Your task to perform on an android device: Show me productivity apps on the Play Store Image 0: 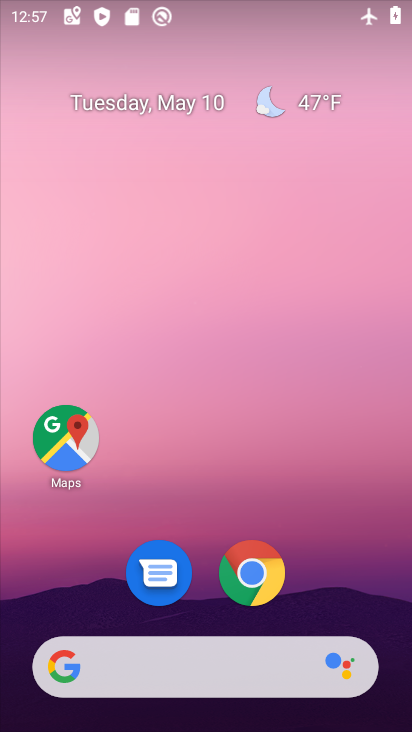
Step 0: drag from (208, 608) to (260, 175)
Your task to perform on an android device: Show me productivity apps on the Play Store Image 1: 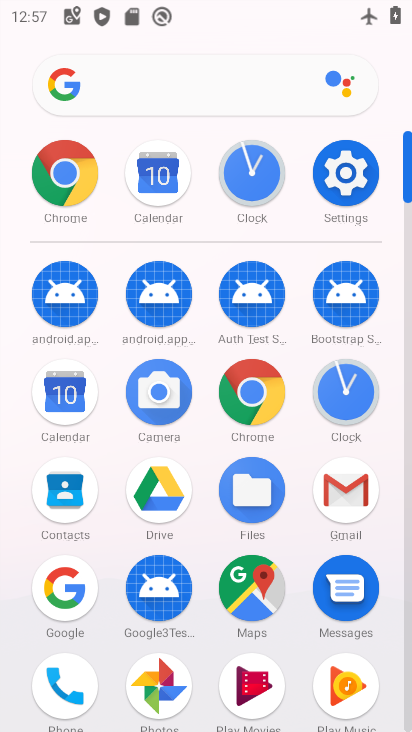
Step 1: drag from (210, 647) to (237, 261)
Your task to perform on an android device: Show me productivity apps on the Play Store Image 2: 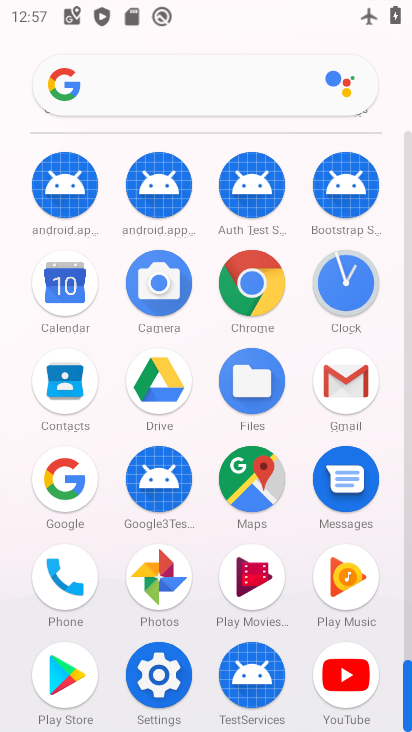
Step 2: click (86, 664)
Your task to perform on an android device: Show me productivity apps on the Play Store Image 3: 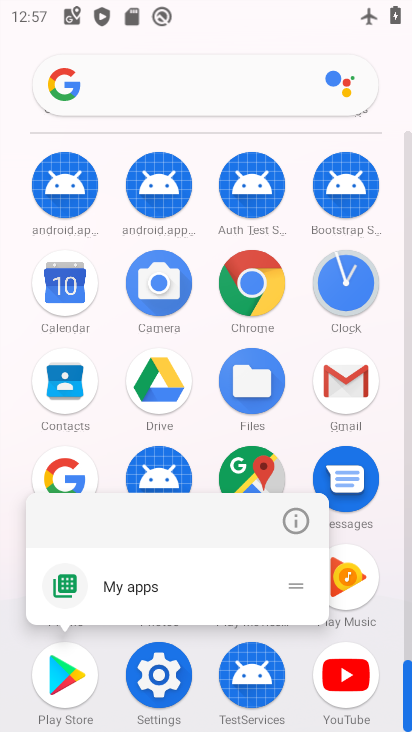
Step 3: click (298, 522)
Your task to perform on an android device: Show me productivity apps on the Play Store Image 4: 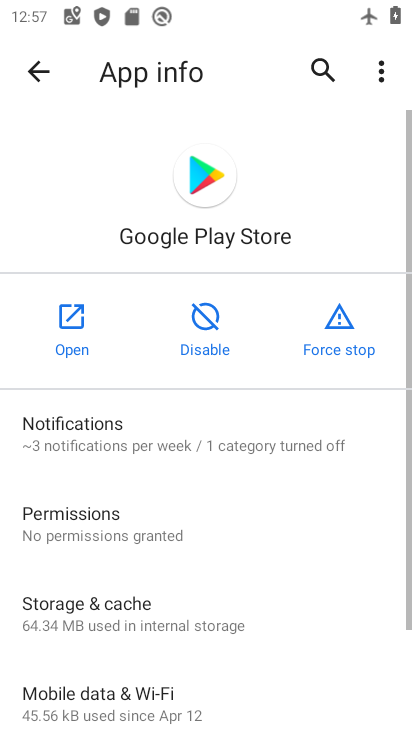
Step 4: click (87, 320)
Your task to perform on an android device: Show me productivity apps on the Play Store Image 5: 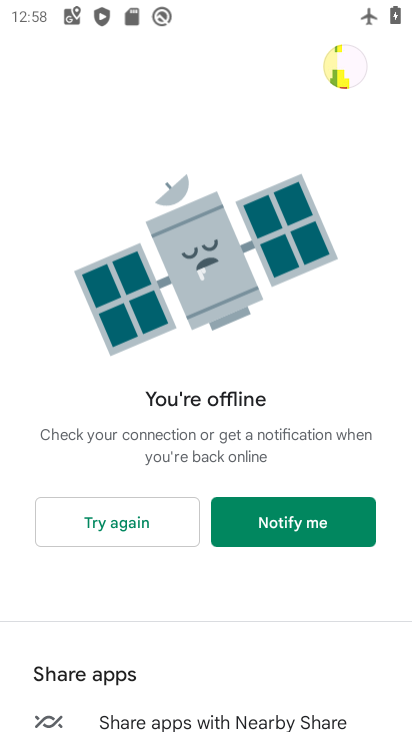
Step 5: click (275, 536)
Your task to perform on an android device: Show me productivity apps on the Play Store Image 6: 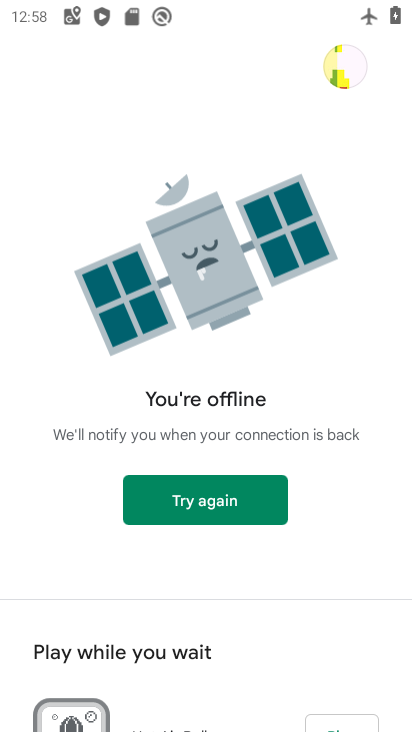
Step 6: click (232, 519)
Your task to perform on an android device: Show me productivity apps on the Play Store Image 7: 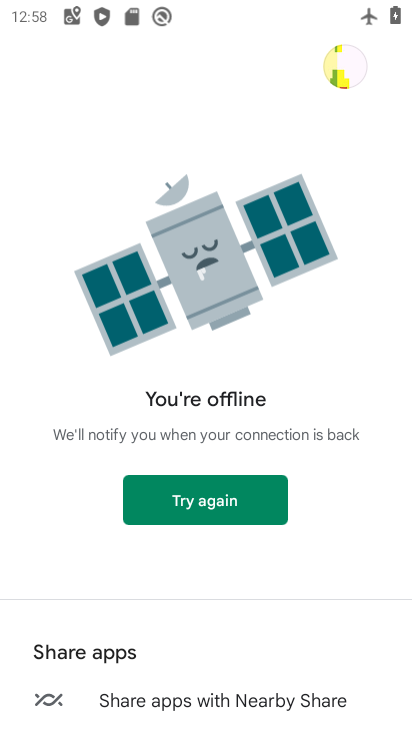
Step 7: task complete